Your task to perform on an android device: toggle location history Image 0: 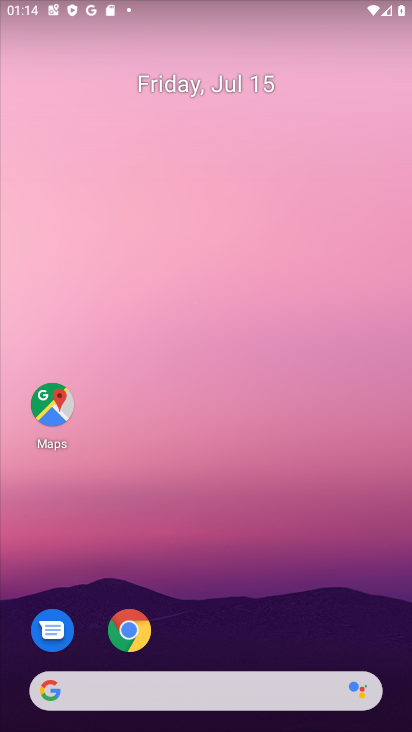
Step 0: drag from (313, 660) to (250, 281)
Your task to perform on an android device: toggle location history Image 1: 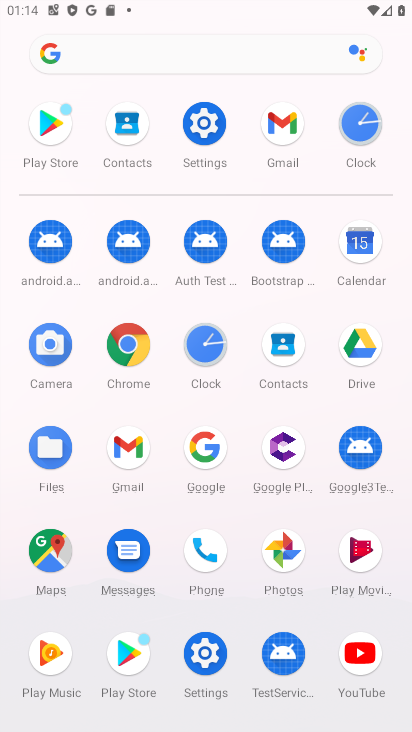
Step 1: click (210, 129)
Your task to perform on an android device: toggle location history Image 2: 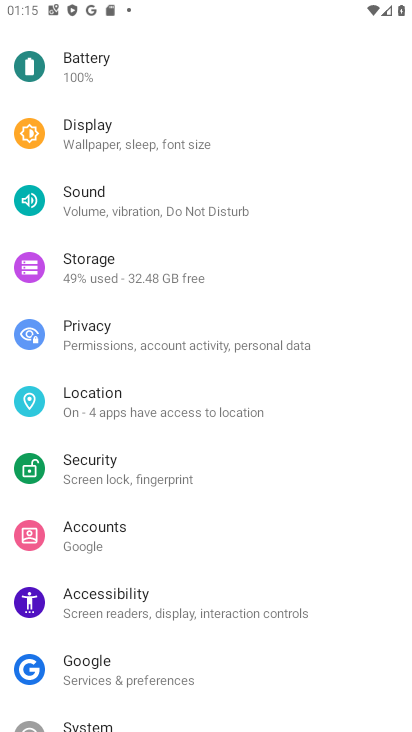
Step 2: click (147, 155)
Your task to perform on an android device: toggle location history Image 3: 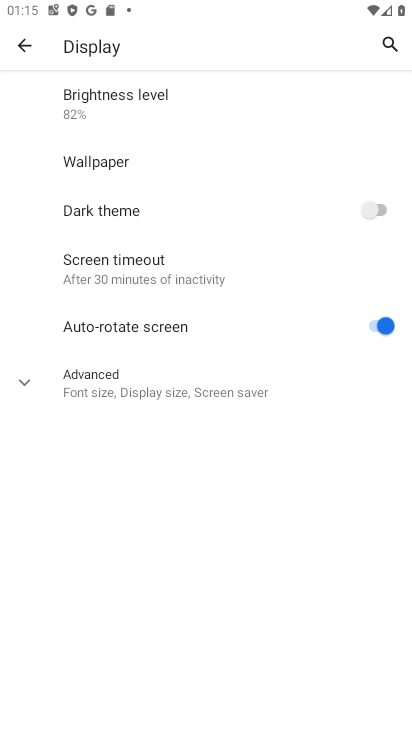
Step 3: task complete